Your task to perform on an android device: toggle wifi Image 0: 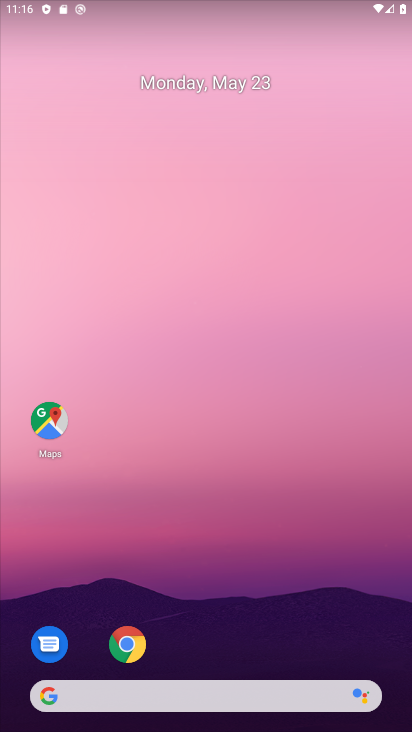
Step 0: drag from (312, 638) to (300, 159)
Your task to perform on an android device: toggle wifi Image 1: 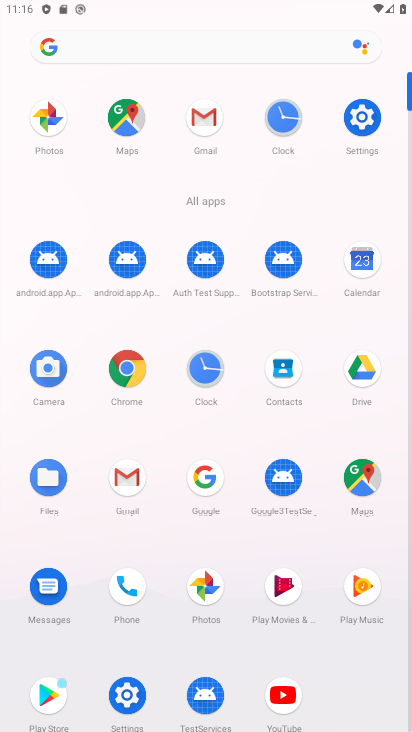
Step 1: click (369, 104)
Your task to perform on an android device: toggle wifi Image 2: 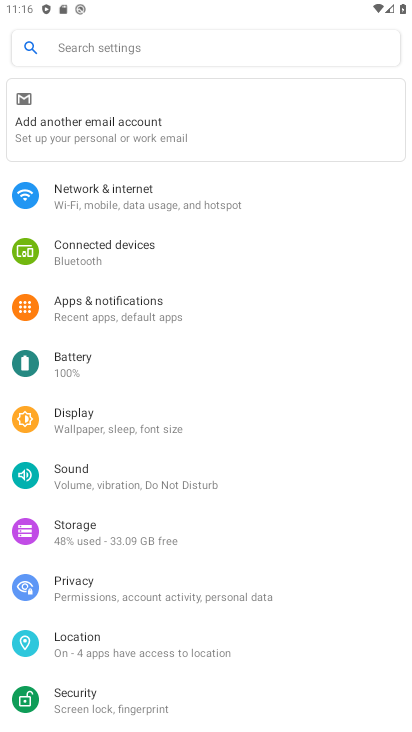
Step 2: click (150, 199)
Your task to perform on an android device: toggle wifi Image 3: 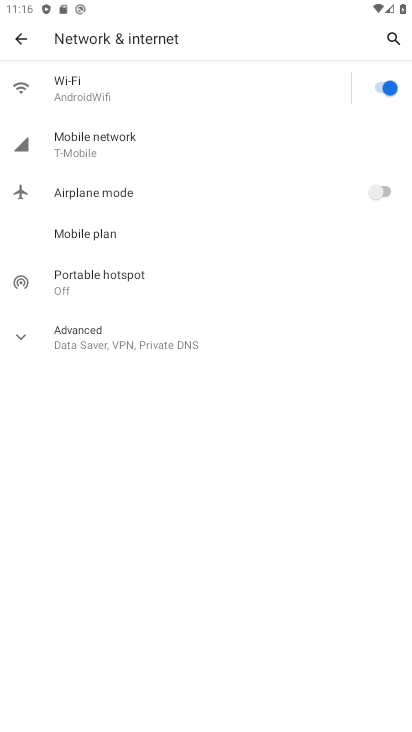
Step 3: click (383, 94)
Your task to perform on an android device: toggle wifi Image 4: 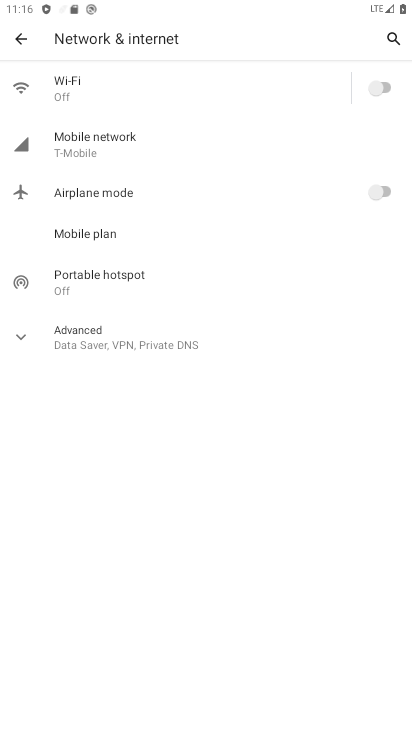
Step 4: task complete